Your task to perform on an android device: find photos in the google photos app Image 0: 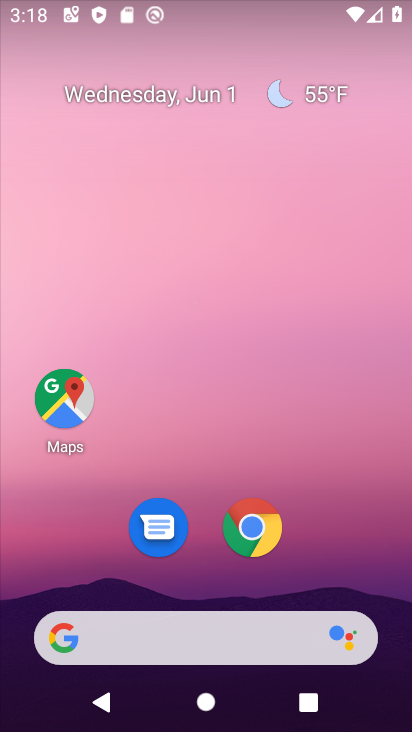
Step 0: press home button
Your task to perform on an android device: find photos in the google photos app Image 1: 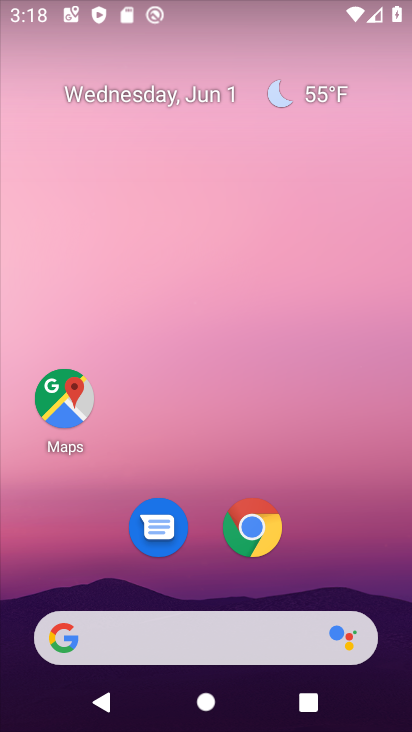
Step 1: drag from (359, 546) to (284, 47)
Your task to perform on an android device: find photos in the google photos app Image 2: 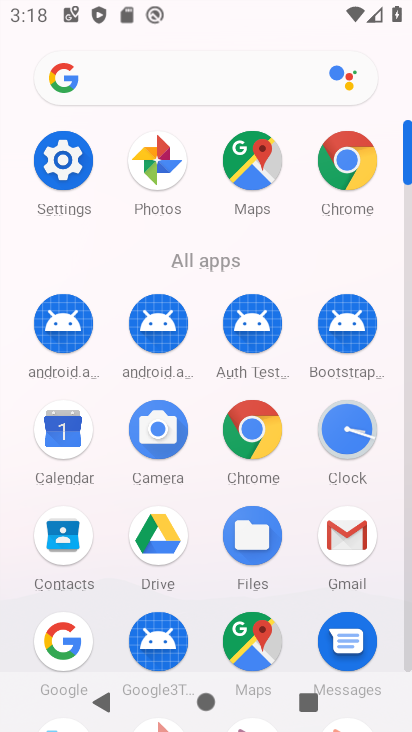
Step 2: click (406, 588)
Your task to perform on an android device: find photos in the google photos app Image 3: 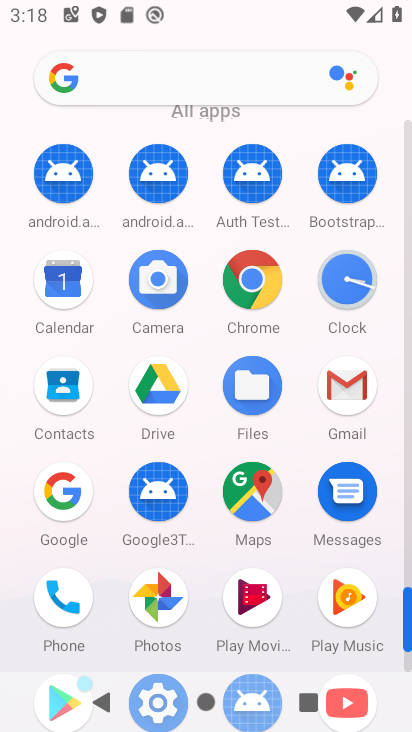
Step 3: click (162, 581)
Your task to perform on an android device: find photos in the google photos app Image 4: 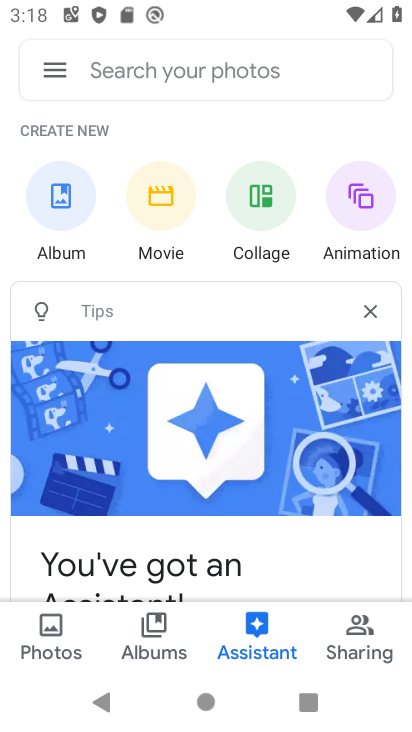
Step 4: click (37, 644)
Your task to perform on an android device: find photos in the google photos app Image 5: 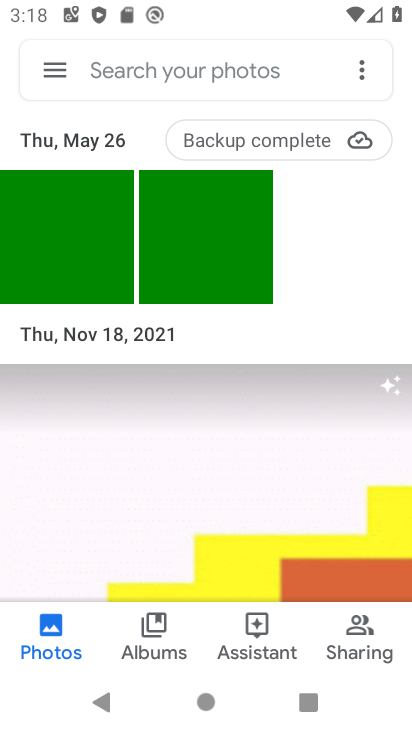
Step 5: task complete